Your task to perform on an android device: Open the stopwatch Image 0: 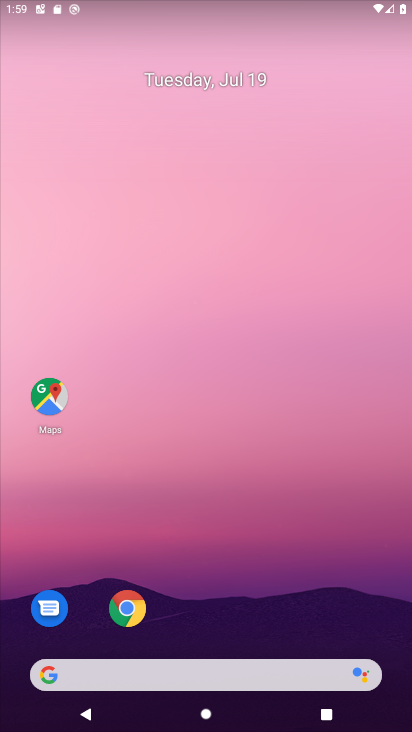
Step 0: drag from (239, 610) to (258, 114)
Your task to perform on an android device: Open the stopwatch Image 1: 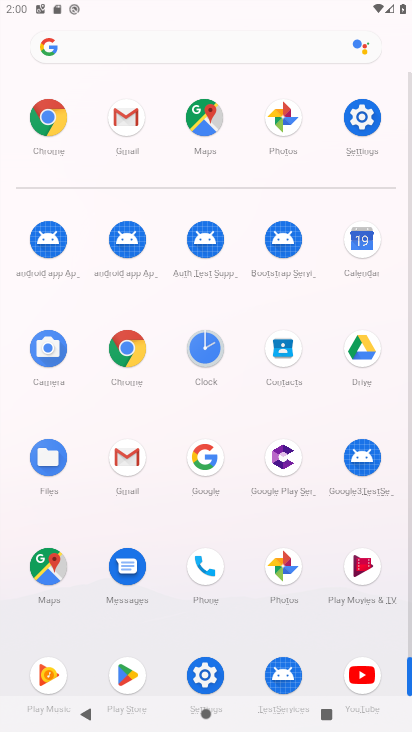
Step 1: click (204, 363)
Your task to perform on an android device: Open the stopwatch Image 2: 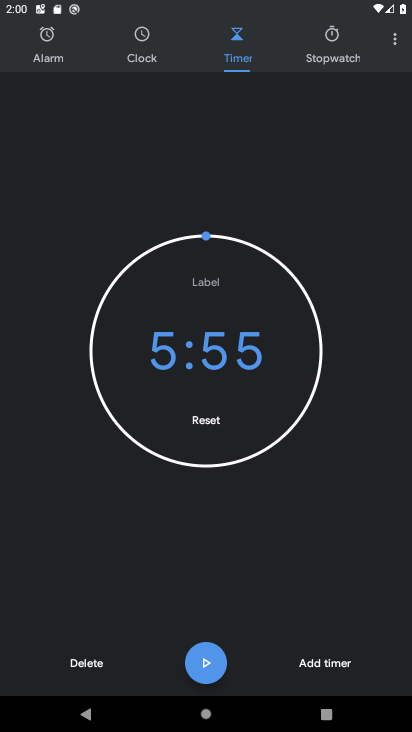
Step 2: click (328, 46)
Your task to perform on an android device: Open the stopwatch Image 3: 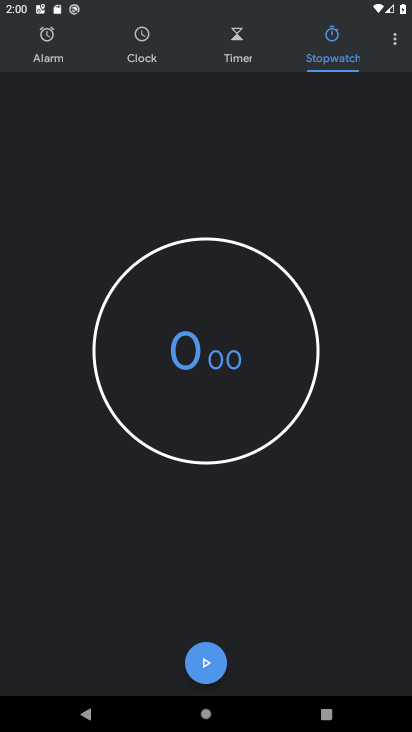
Step 3: task complete